Your task to perform on an android device: Open Google Maps Image 0: 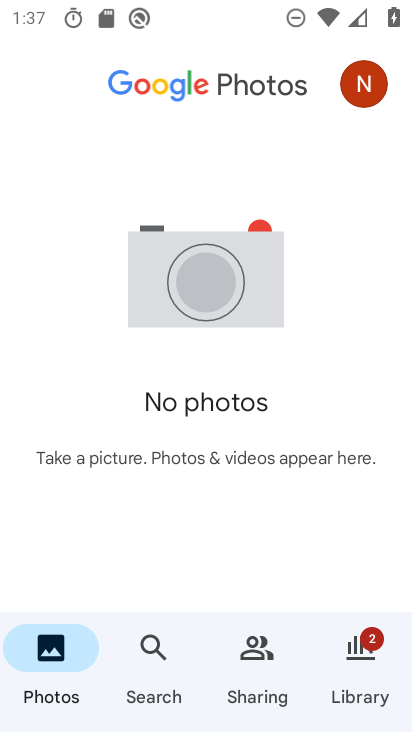
Step 0: press home button
Your task to perform on an android device: Open Google Maps Image 1: 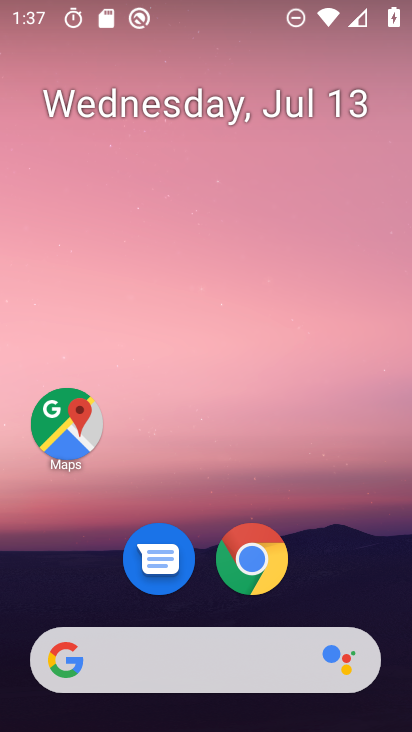
Step 1: drag from (209, 702) to (317, 193)
Your task to perform on an android device: Open Google Maps Image 2: 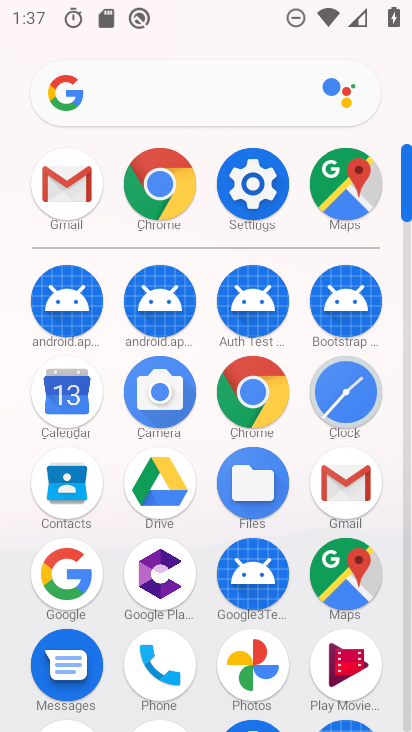
Step 2: click (365, 567)
Your task to perform on an android device: Open Google Maps Image 3: 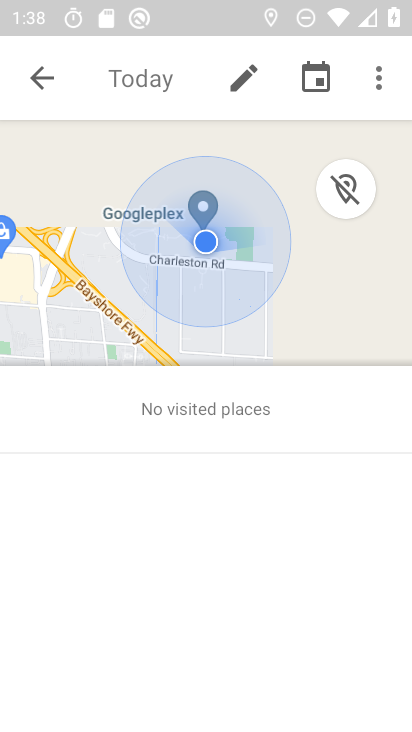
Step 3: task complete